Your task to perform on an android device: find photos in the google photos app Image 0: 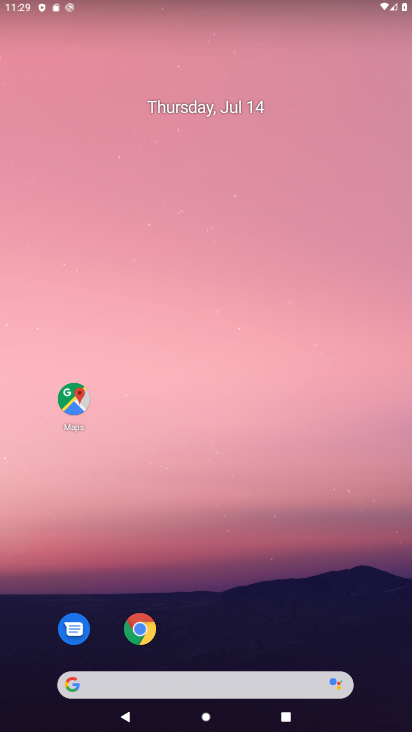
Step 0: drag from (257, 588) to (213, 87)
Your task to perform on an android device: find photos in the google photos app Image 1: 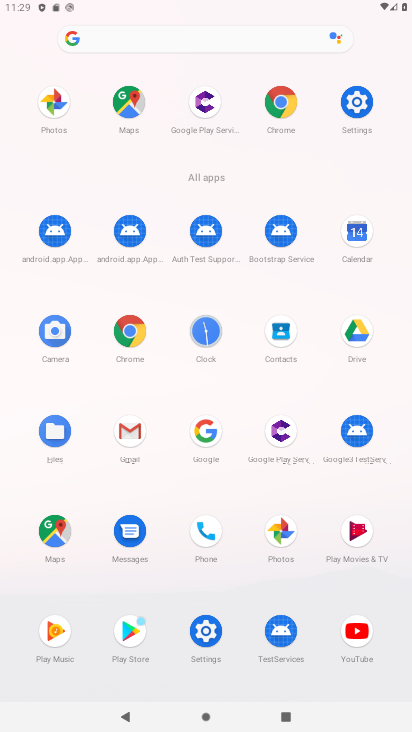
Step 1: click (277, 540)
Your task to perform on an android device: find photos in the google photos app Image 2: 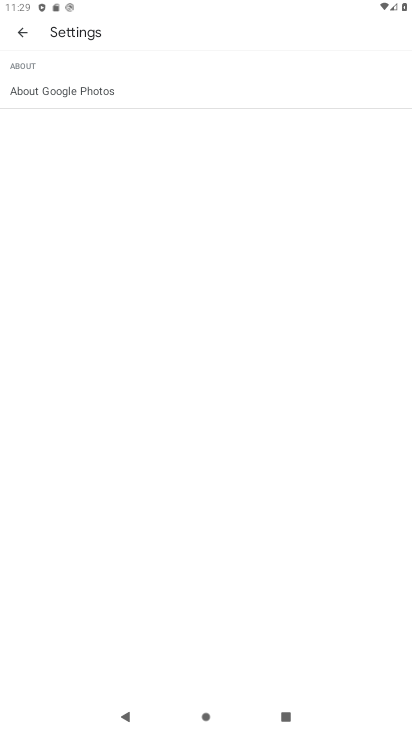
Step 2: click (17, 36)
Your task to perform on an android device: find photos in the google photos app Image 3: 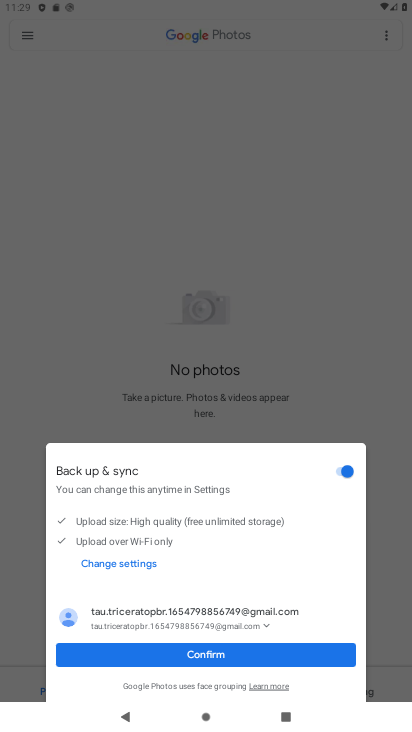
Step 3: click (259, 654)
Your task to perform on an android device: find photos in the google photos app Image 4: 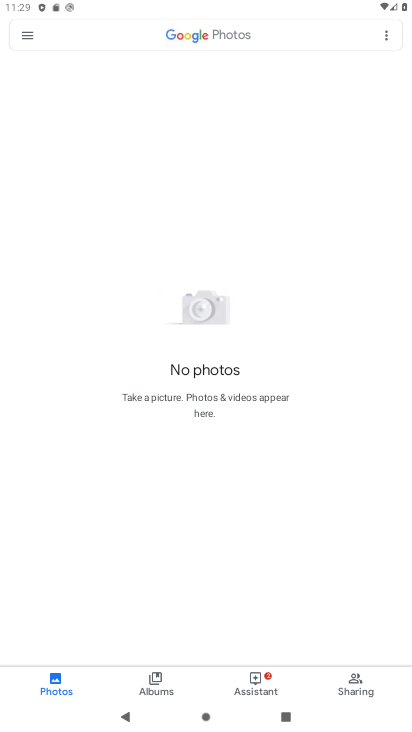
Step 4: task complete